Your task to perform on an android device: Go to Reddit.com Image 0: 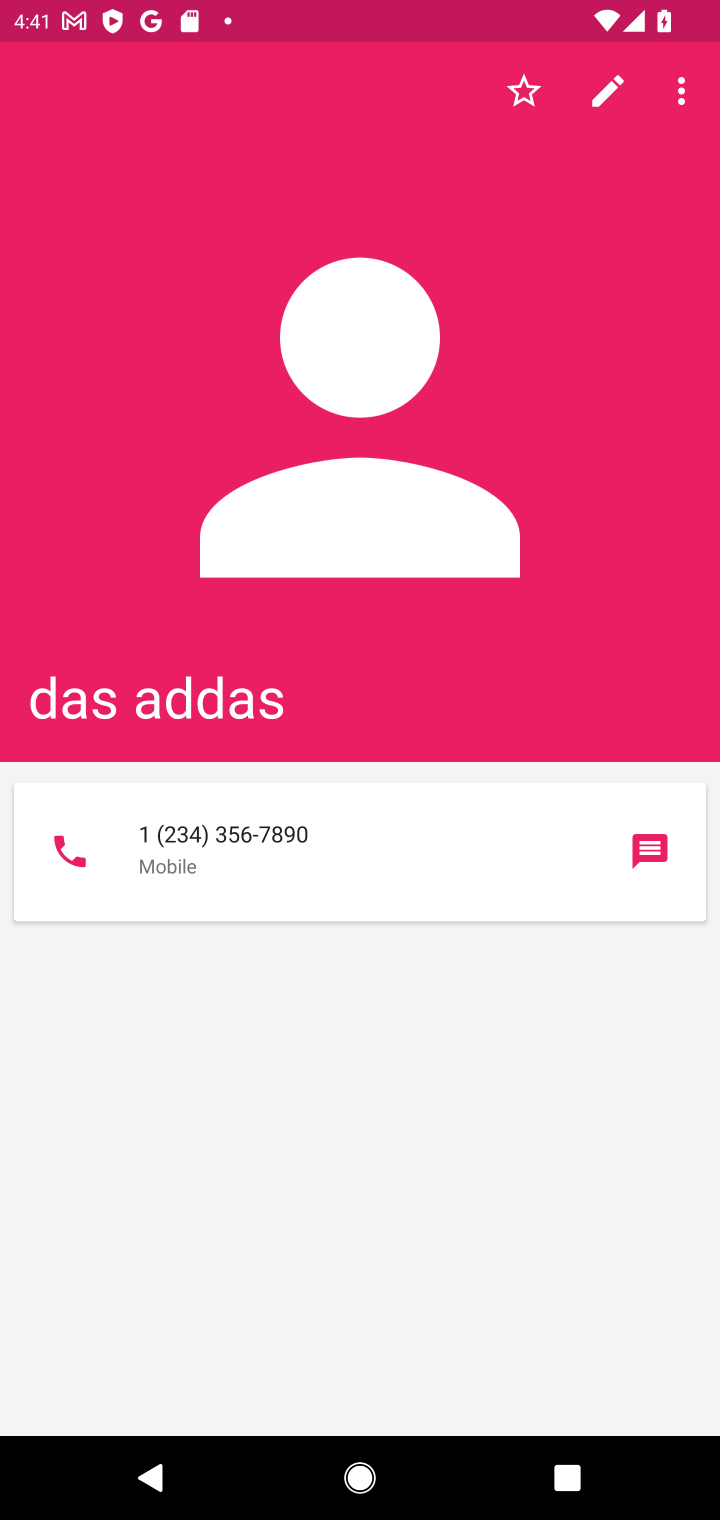
Step 0: press home button
Your task to perform on an android device: Go to Reddit.com Image 1: 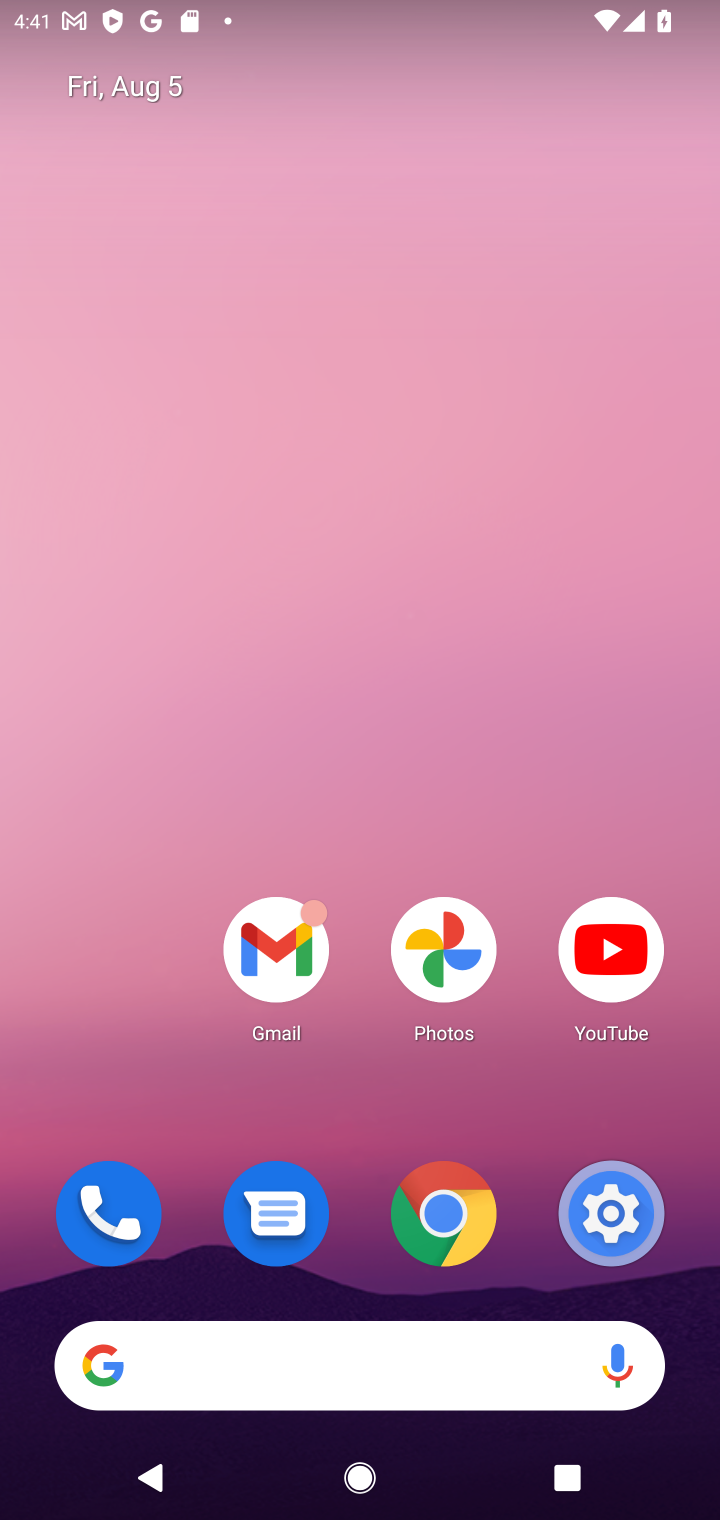
Step 1: click (408, 1237)
Your task to perform on an android device: Go to Reddit.com Image 2: 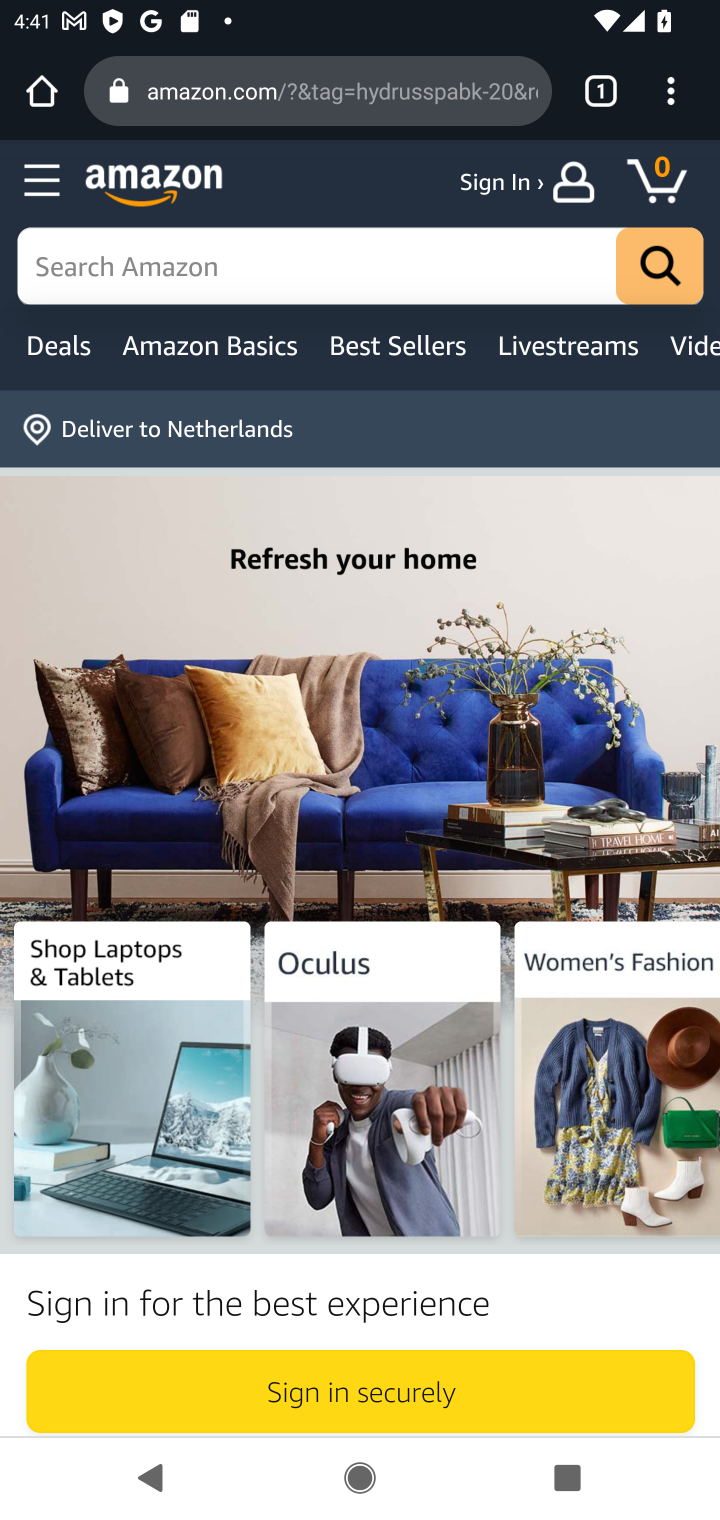
Step 2: click (332, 103)
Your task to perform on an android device: Go to Reddit.com Image 3: 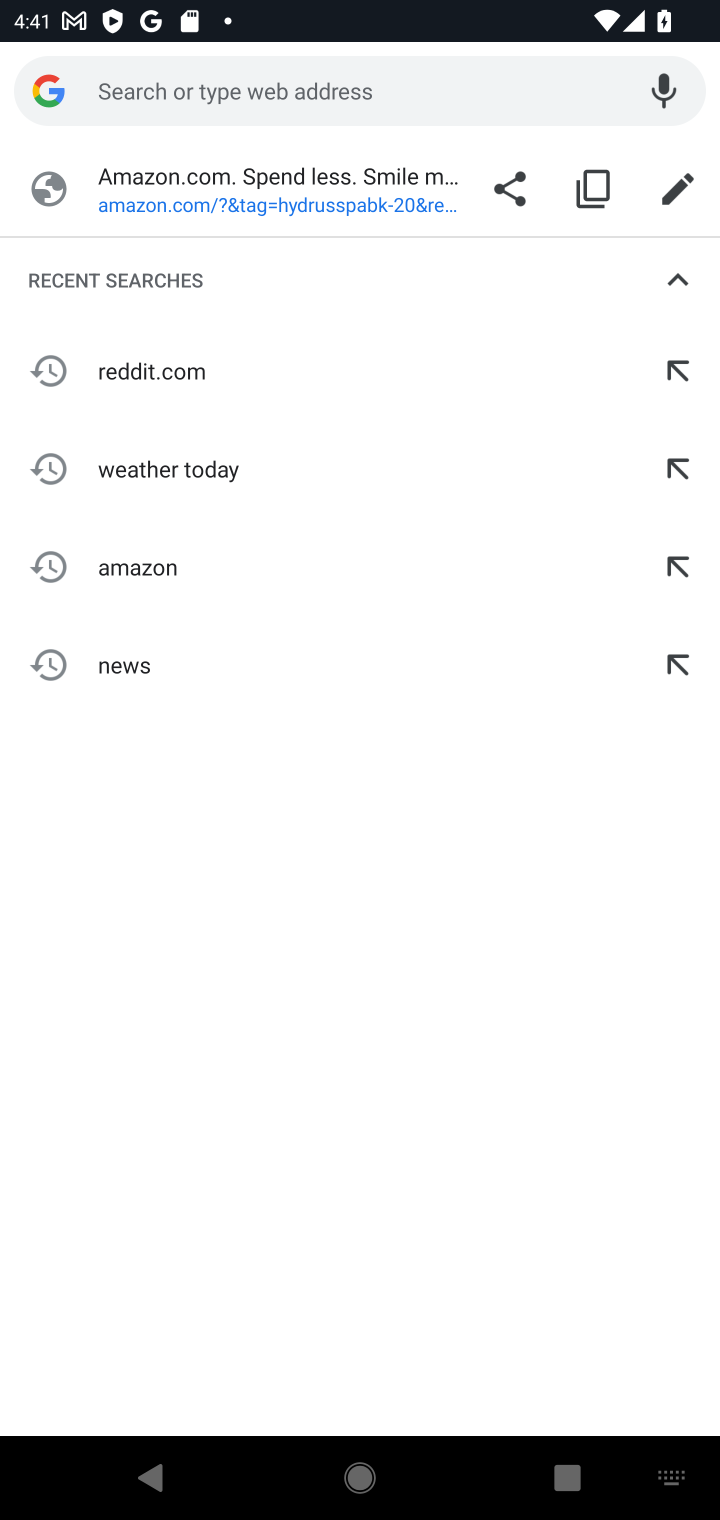
Step 3: type "reddit"
Your task to perform on an android device: Go to Reddit.com Image 4: 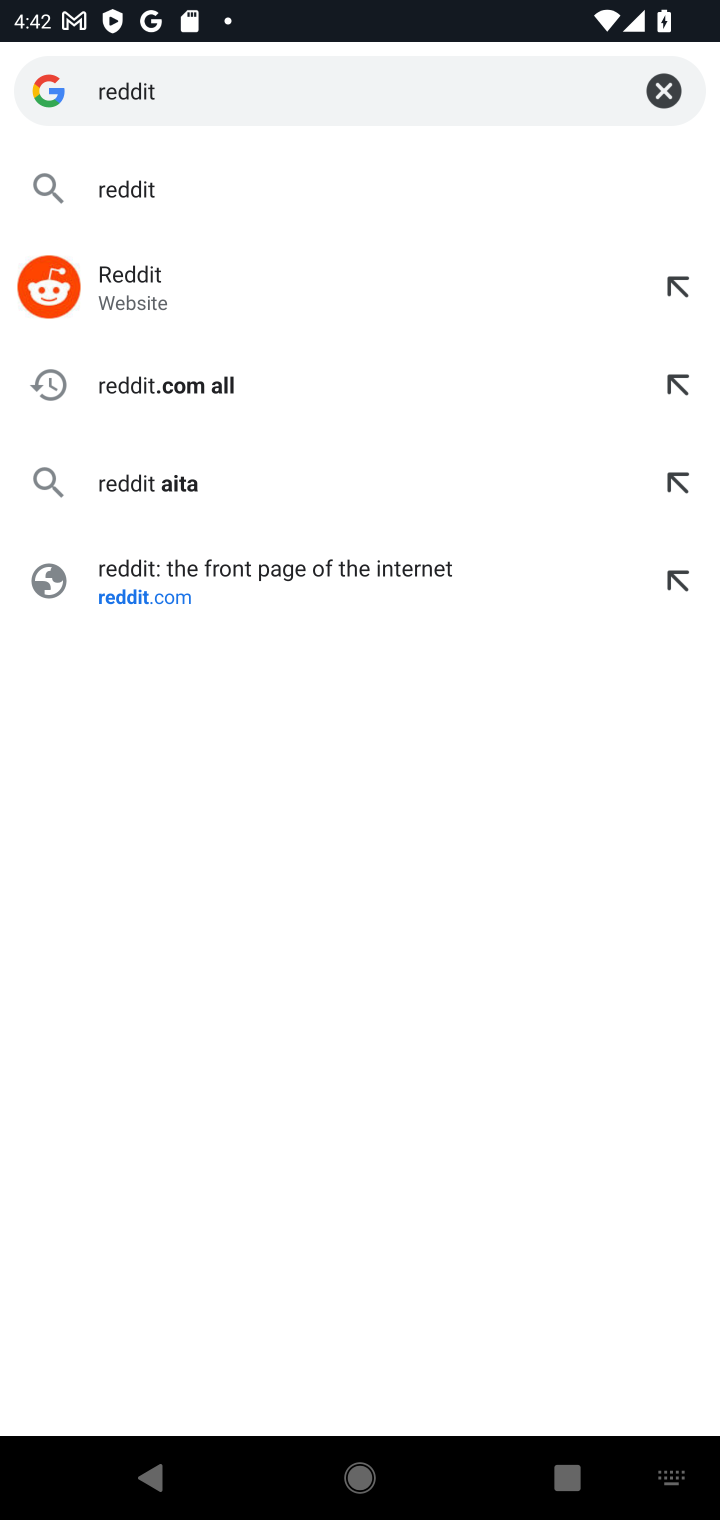
Step 4: click (118, 272)
Your task to perform on an android device: Go to Reddit.com Image 5: 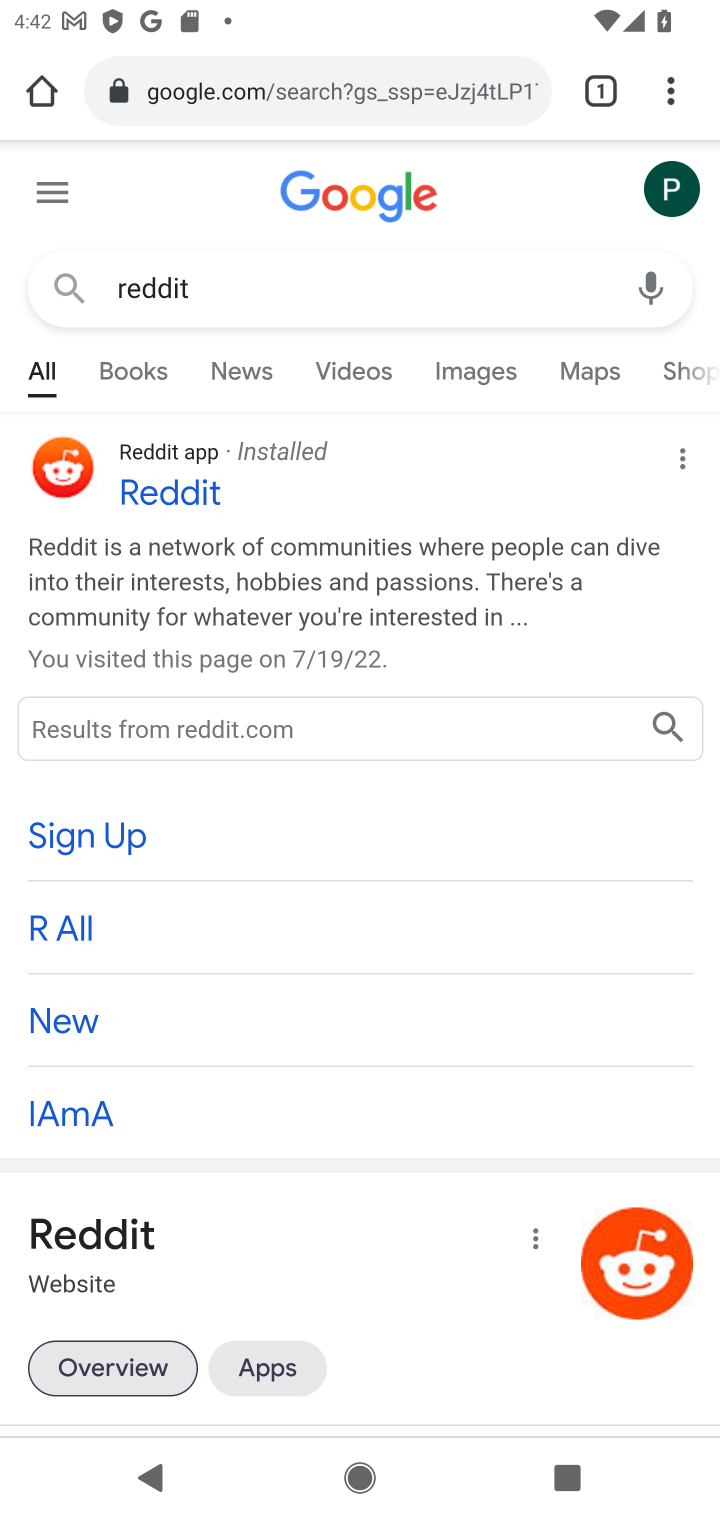
Step 5: task complete